Your task to perform on an android device: Open notification settings Image 0: 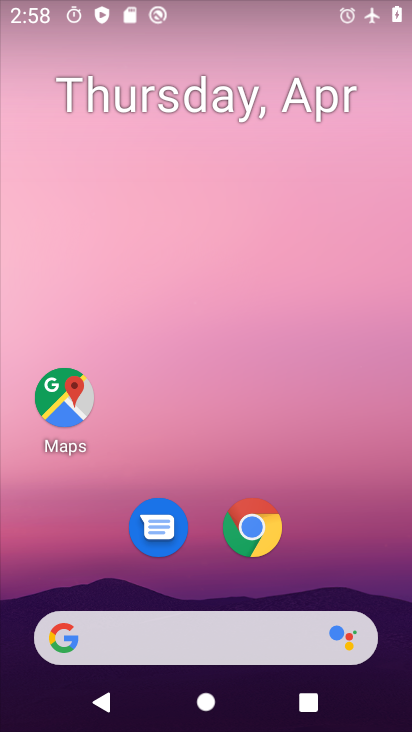
Step 0: drag from (371, 596) to (308, 155)
Your task to perform on an android device: Open notification settings Image 1: 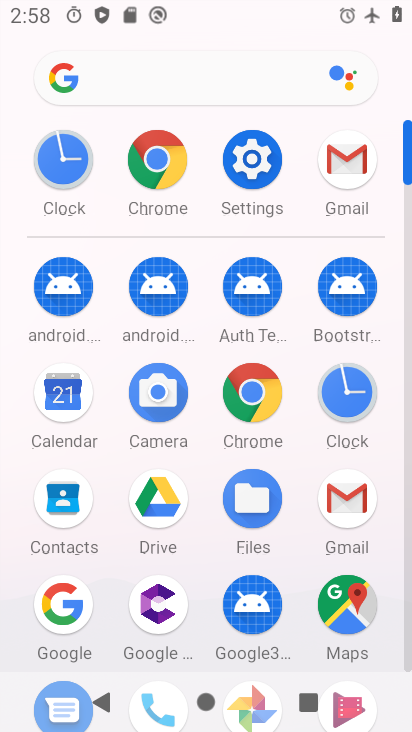
Step 1: drag from (323, 584) to (375, 226)
Your task to perform on an android device: Open notification settings Image 2: 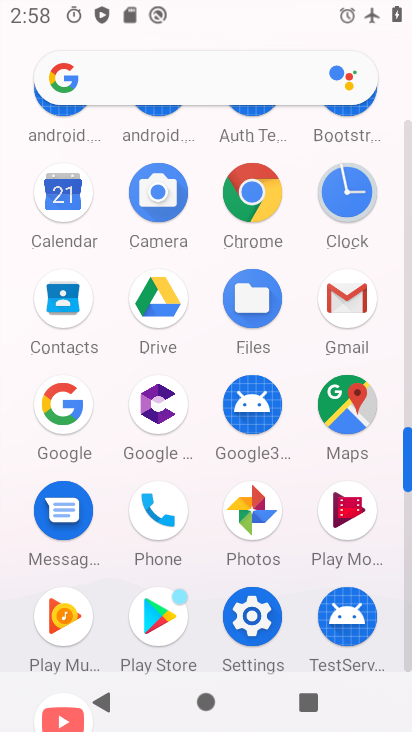
Step 2: click (246, 620)
Your task to perform on an android device: Open notification settings Image 3: 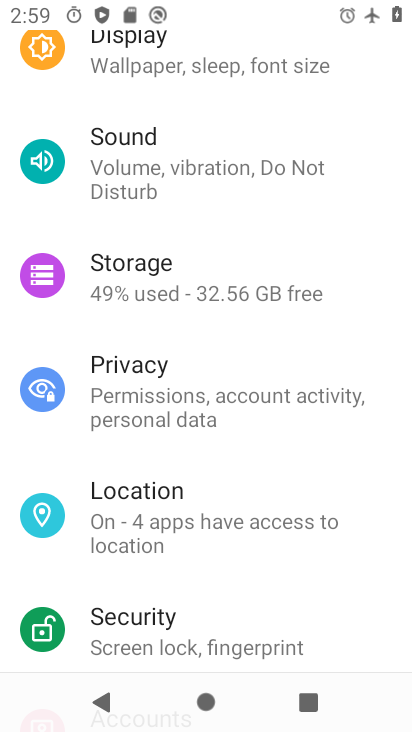
Step 3: drag from (197, 209) to (195, 592)
Your task to perform on an android device: Open notification settings Image 4: 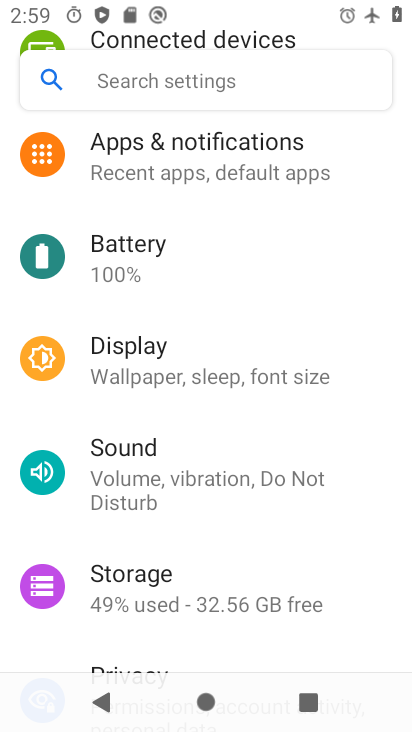
Step 4: drag from (199, 190) to (129, 580)
Your task to perform on an android device: Open notification settings Image 5: 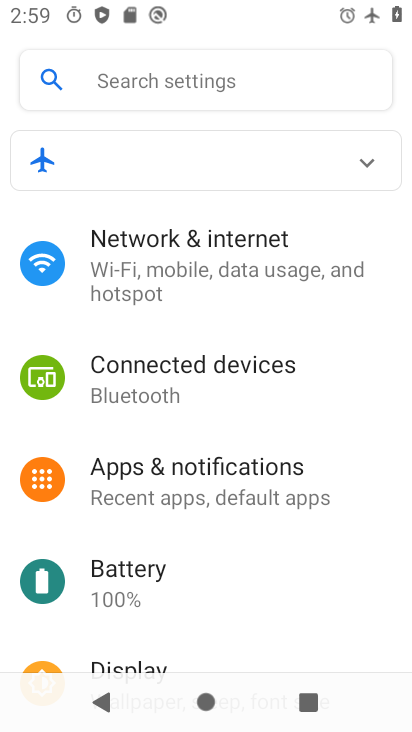
Step 5: click (132, 467)
Your task to perform on an android device: Open notification settings Image 6: 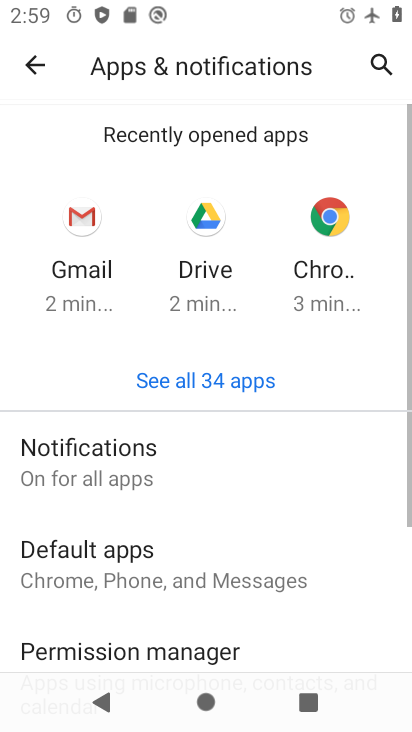
Step 6: click (132, 467)
Your task to perform on an android device: Open notification settings Image 7: 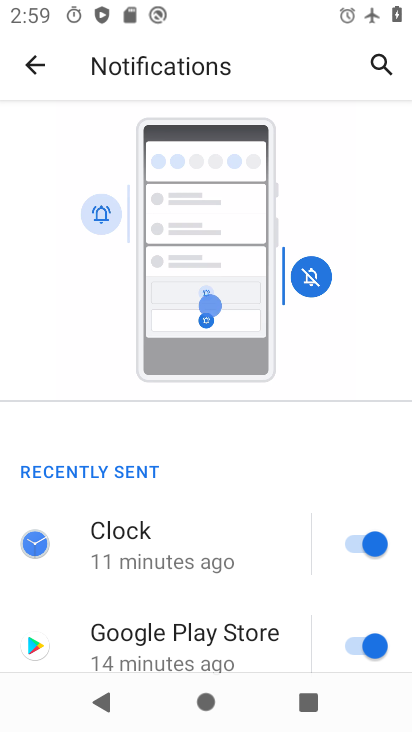
Step 7: task complete